Your task to perform on an android device: star an email in the gmail app Image 0: 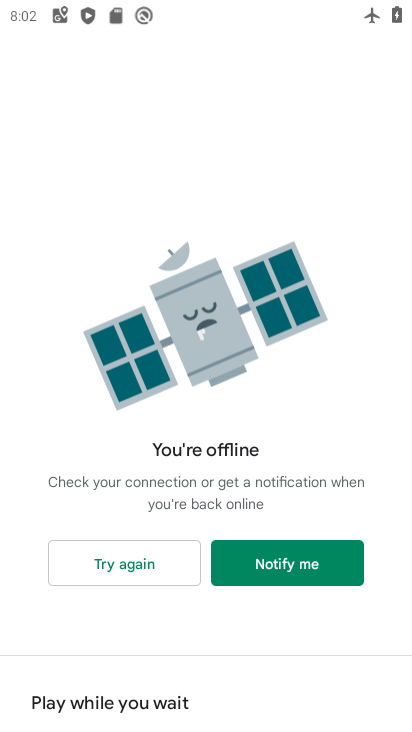
Step 0: press home button
Your task to perform on an android device: star an email in the gmail app Image 1: 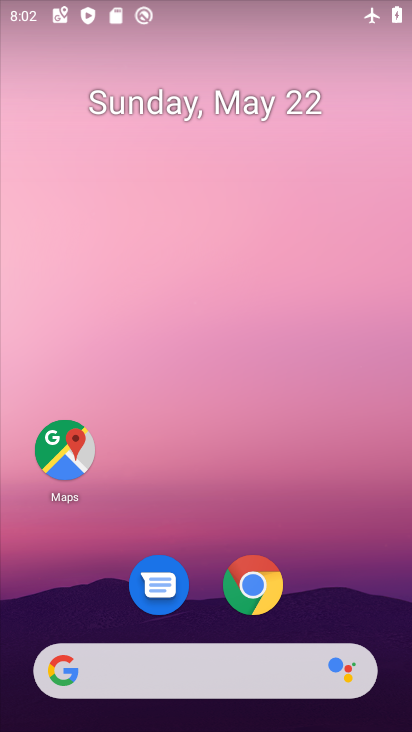
Step 1: drag from (219, 521) to (192, 56)
Your task to perform on an android device: star an email in the gmail app Image 2: 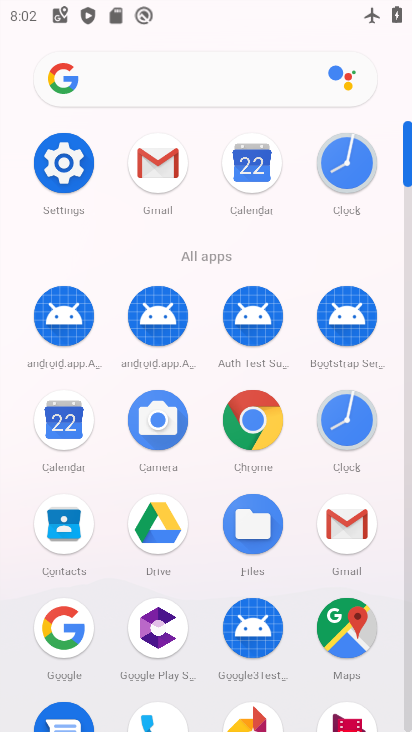
Step 2: click (163, 168)
Your task to perform on an android device: star an email in the gmail app Image 3: 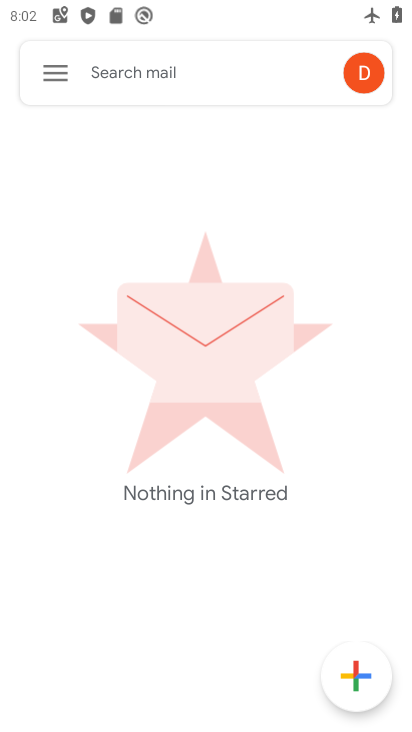
Step 3: click (56, 73)
Your task to perform on an android device: star an email in the gmail app Image 4: 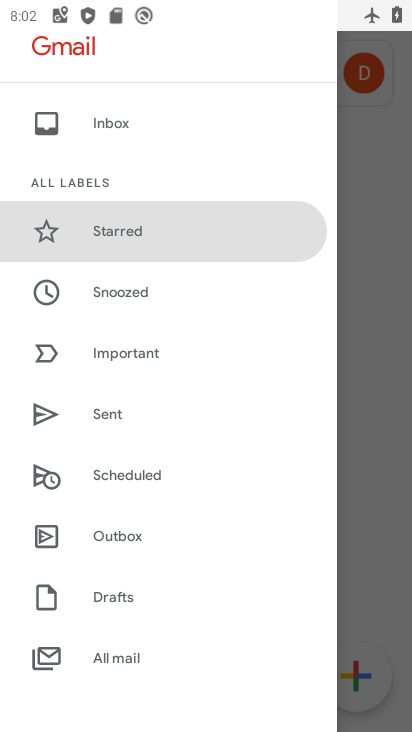
Step 4: click (152, 649)
Your task to perform on an android device: star an email in the gmail app Image 5: 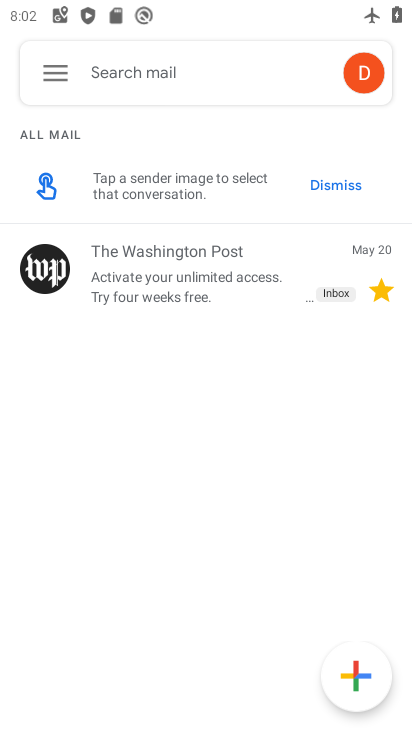
Step 5: task complete